Your task to perform on an android device: open a bookmark in the chrome app Image 0: 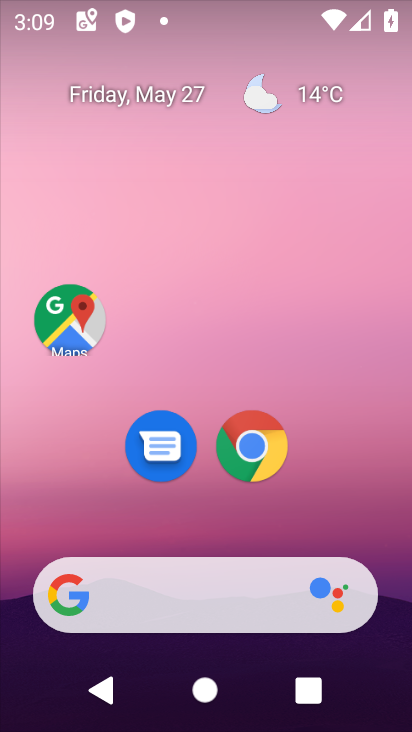
Step 0: press home button
Your task to perform on an android device: open a bookmark in the chrome app Image 1: 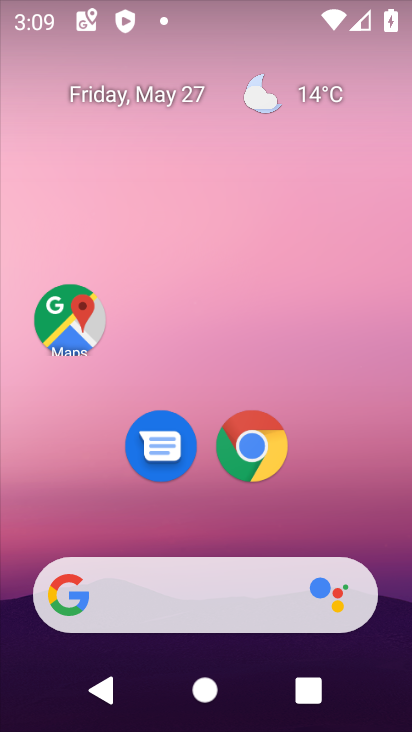
Step 1: click (252, 455)
Your task to perform on an android device: open a bookmark in the chrome app Image 2: 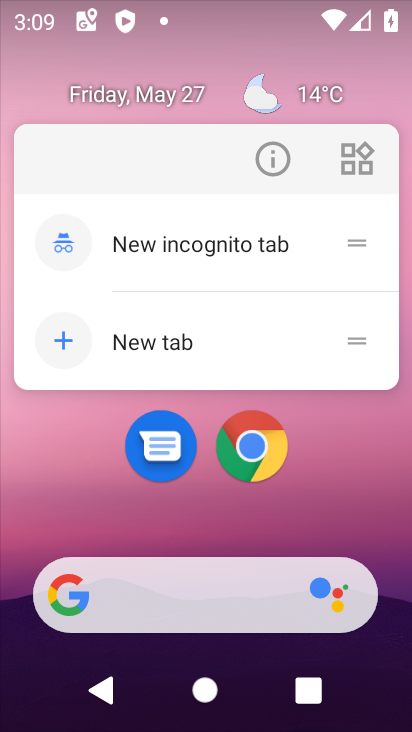
Step 2: click (240, 467)
Your task to perform on an android device: open a bookmark in the chrome app Image 3: 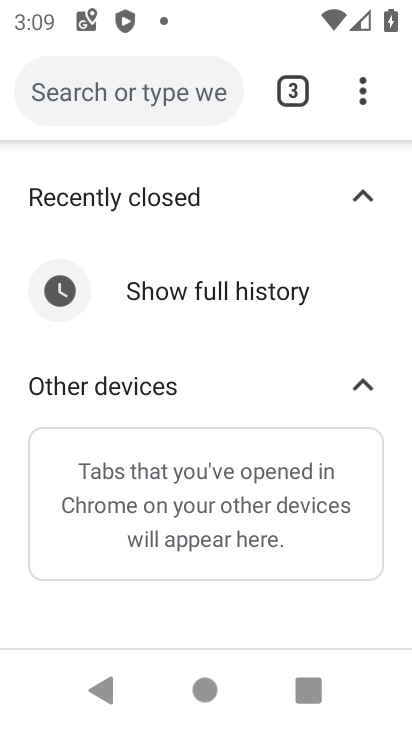
Step 3: task complete